Your task to perform on an android device: delete the emails in spam in the gmail app Image 0: 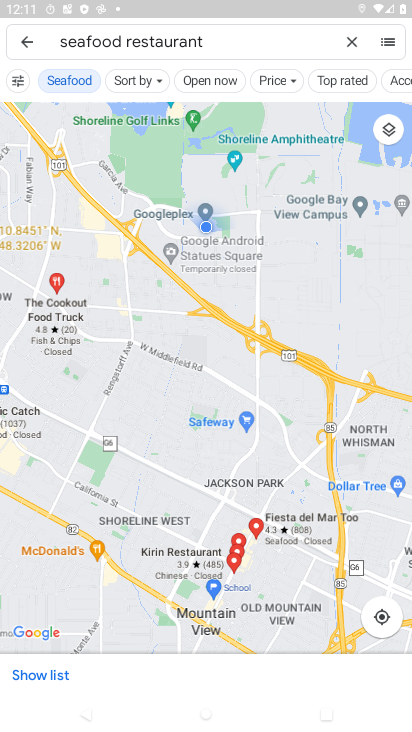
Step 0: press home button
Your task to perform on an android device: delete the emails in spam in the gmail app Image 1: 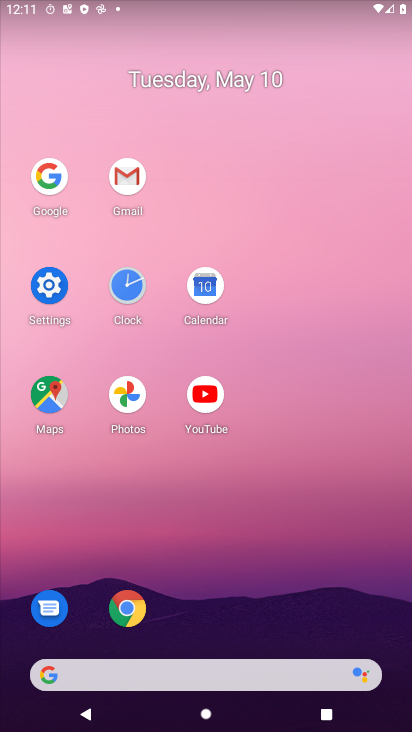
Step 1: click (123, 185)
Your task to perform on an android device: delete the emails in spam in the gmail app Image 2: 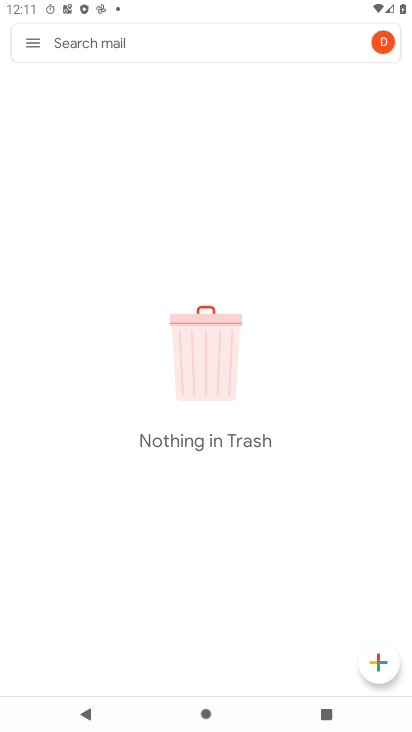
Step 2: click (25, 51)
Your task to perform on an android device: delete the emails in spam in the gmail app Image 3: 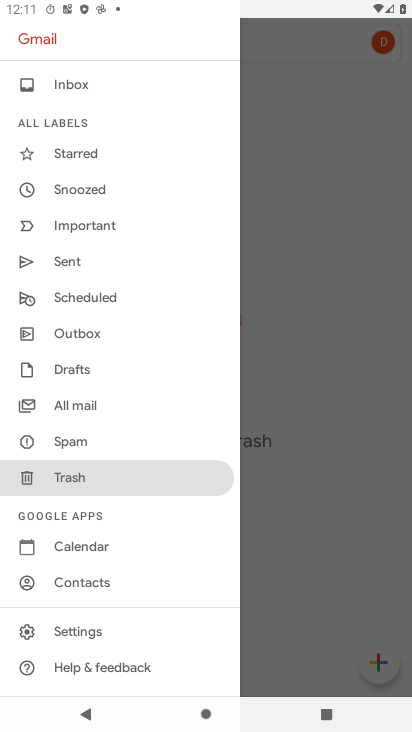
Step 3: click (106, 440)
Your task to perform on an android device: delete the emails in spam in the gmail app Image 4: 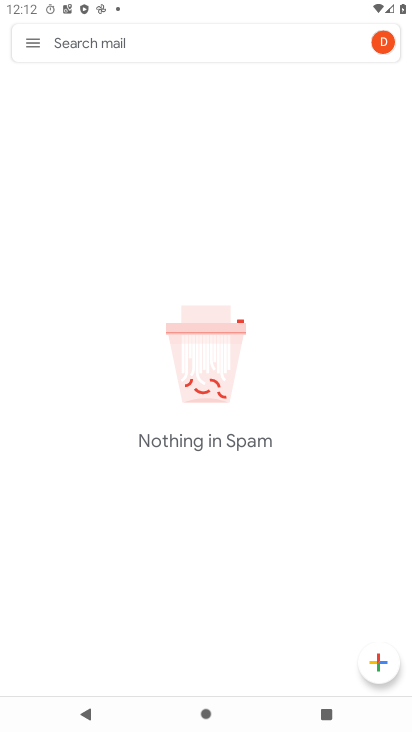
Step 4: task complete